Your task to perform on an android device: turn off priority inbox in the gmail app Image 0: 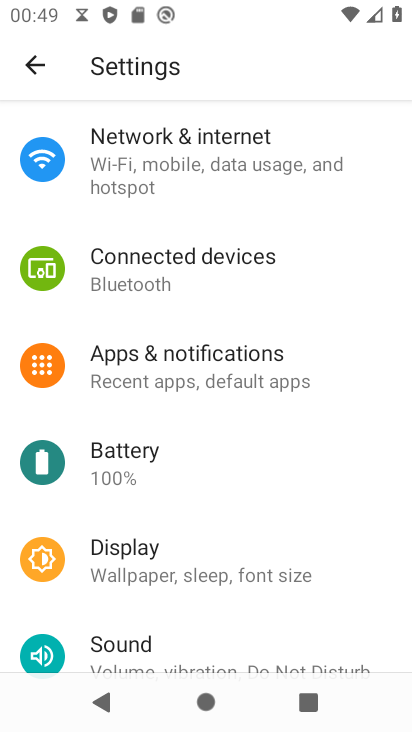
Step 0: press home button
Your task to perform on an android device: turn off priority inbox in the gmail app Image 1: 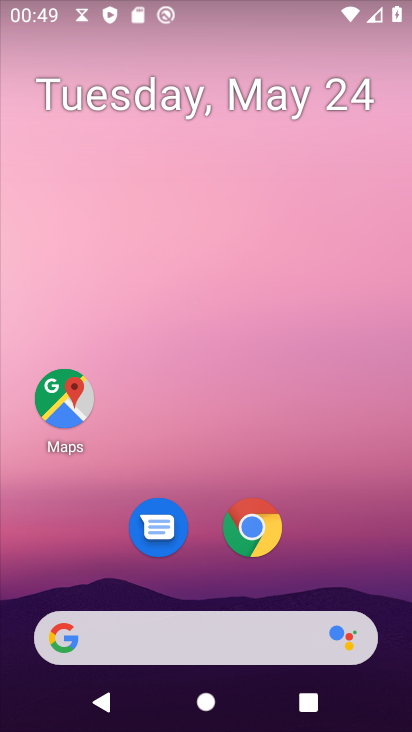
Step 1: drag from (182, 615) to (305, 103)
Your task to perform on an android device: turn off priority inbox in the gmail app Image 2: 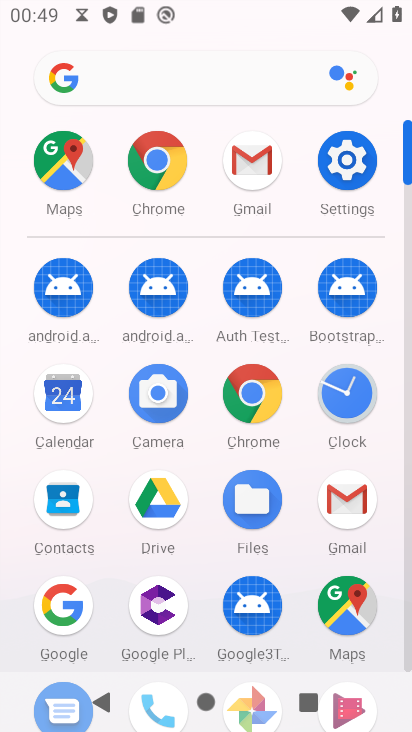
Step 2: click (251, 174)
Your task to perform on an android device: turn off priority inbox in the gmail app Image 3: 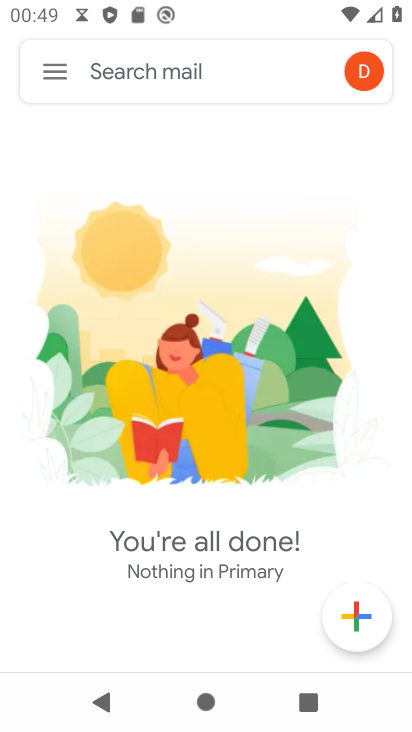
Step 3: click (58, 73)
Your task to perform on an android device: turn off priority inbox in the gmail app Image 4: 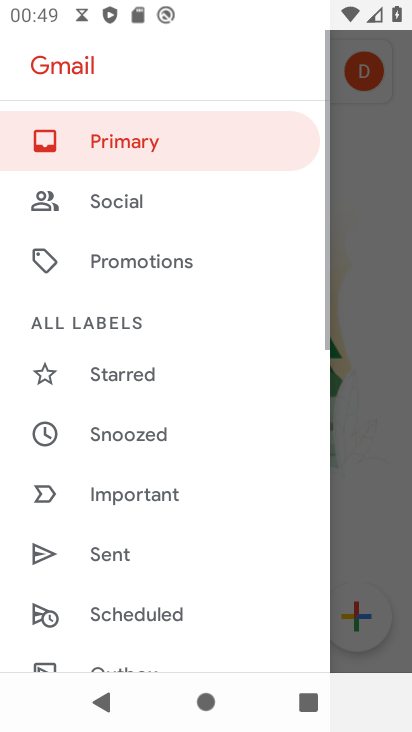
Step 4: drag from (191, 640) to (235, 111)
Your task to perform on an android device: turn off priority inbox in the gmail app Image 5: 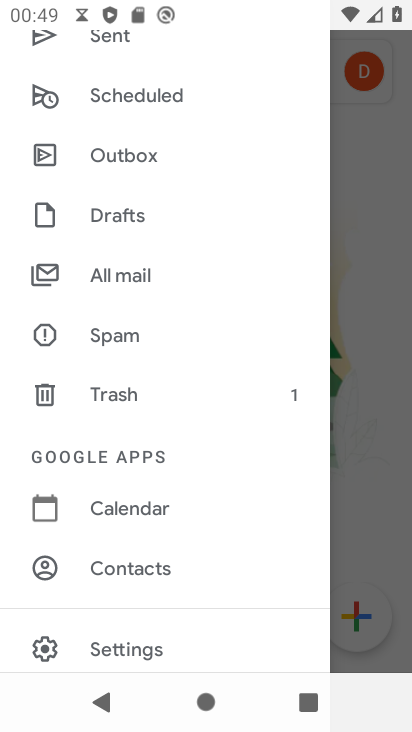
Step 5: click (151, 650)
Your task to perform on an android device: turn off priority inbox in the gmail app Image 6: 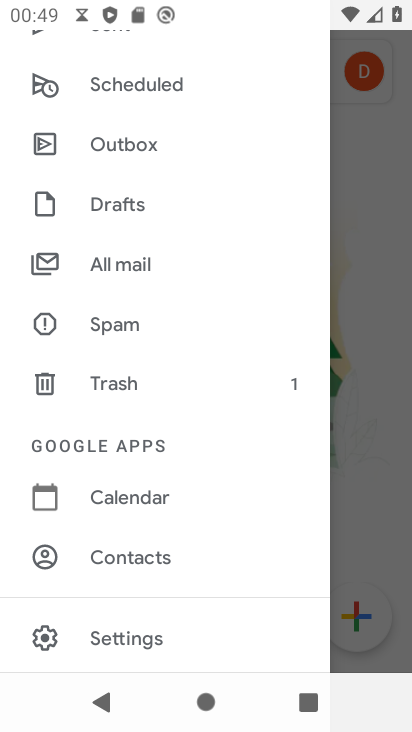
Step 6: click (128, 641)
Your task to perform on an android device: turn off priority inbox in the gmail app Image 7: 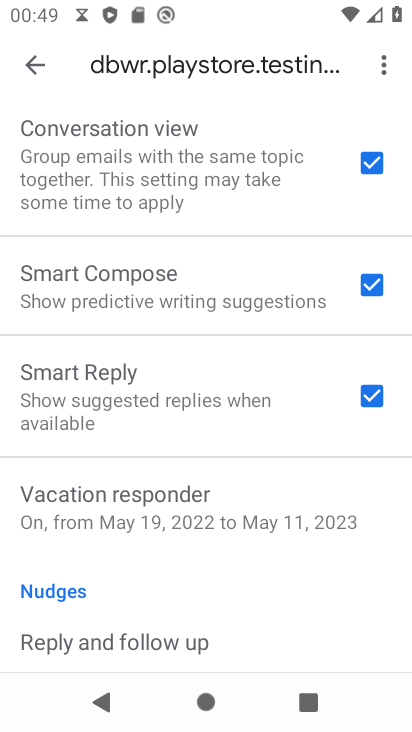
Step 7: drag from (274, 125) to (159, 638)
Your task to perform on an android device: turn off priority inbox in the gmail app Image 8: 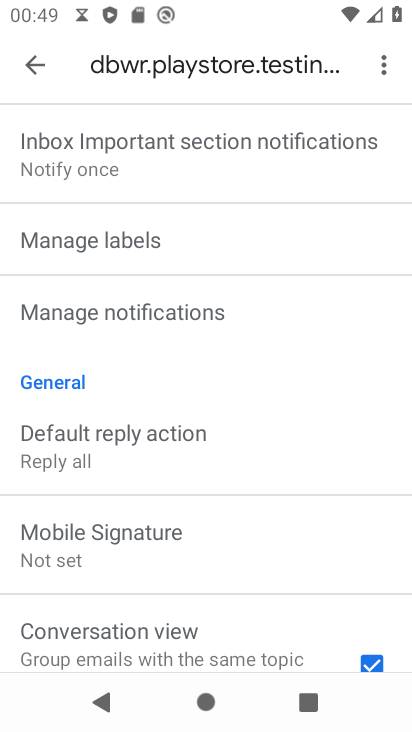
Step 8: drag from (276, 245) to (249, 620)
Your task to perform on an android device: turn off priority inbox in the gmail app Image 9: 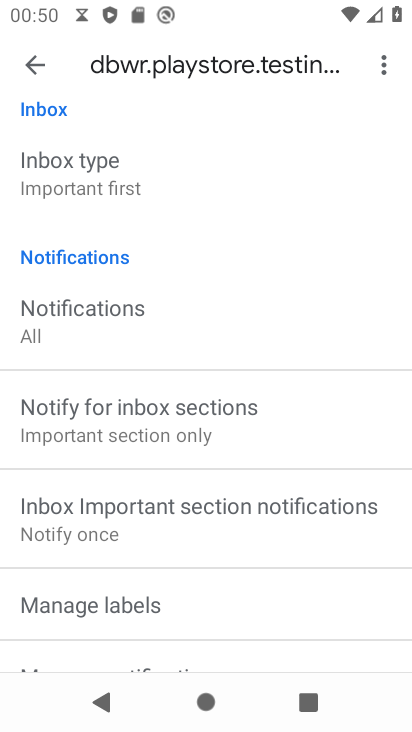
Step 9: click (72, 169)
Your task to perform on an android device: turn off priority inbox in the gmail app Image 10: 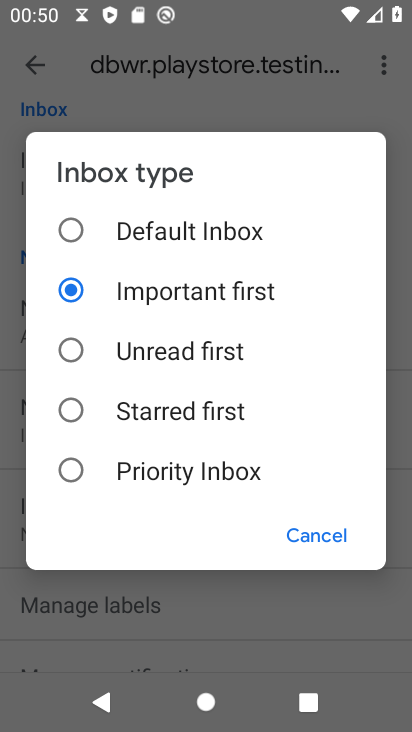
Step 10: task complete